Your task to perform on an android device: open app "LiveIn - Share Your Moment" Image 0: 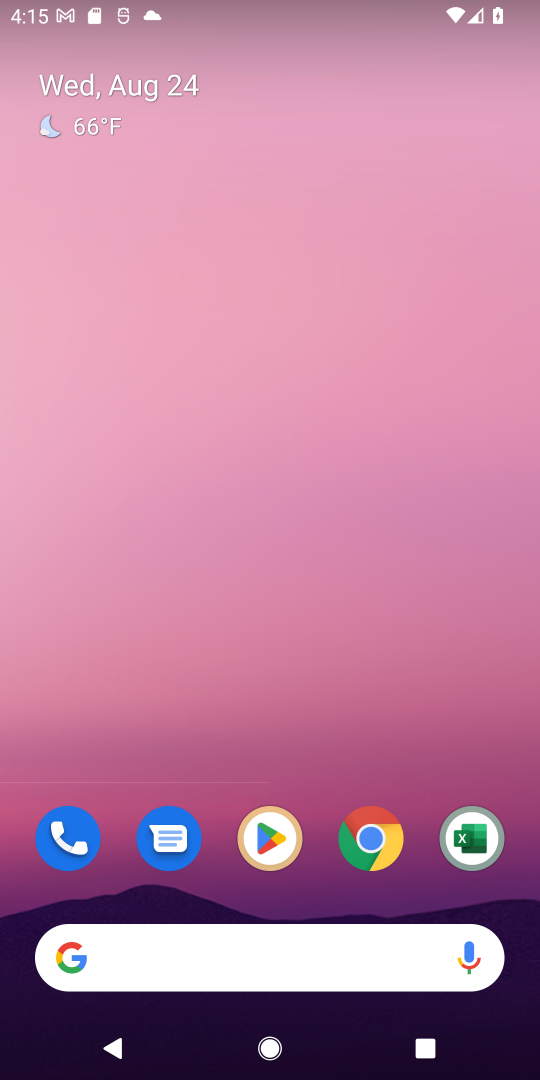
Step 0: press home button
Your task to perform on an android device: open app "LiveIn - Share Your Moment" Image 1: 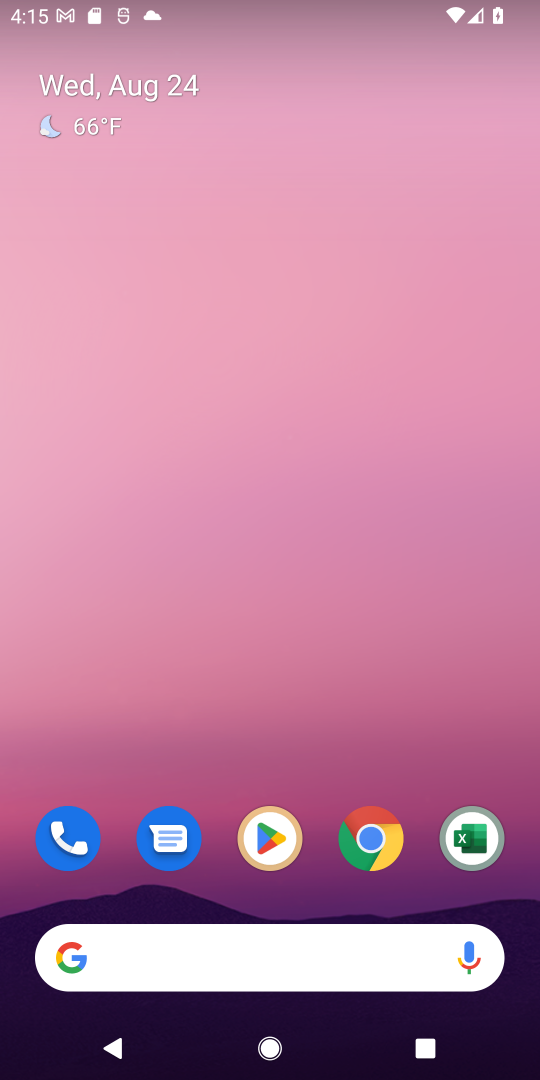
Step 1: click (265, 830)
Your task to perform on an android device: open app "LiveIn - Share Your Moment" Image 2: 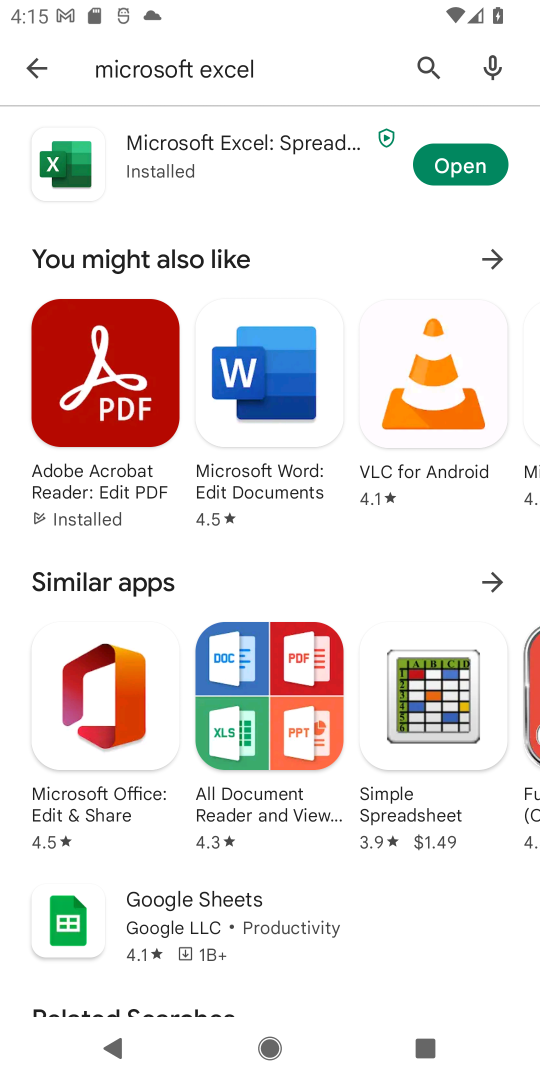
Step 2: click (422, 58)
Your task to perform on an android device: open app "LiveIn - Share Your Moment" Image 3: 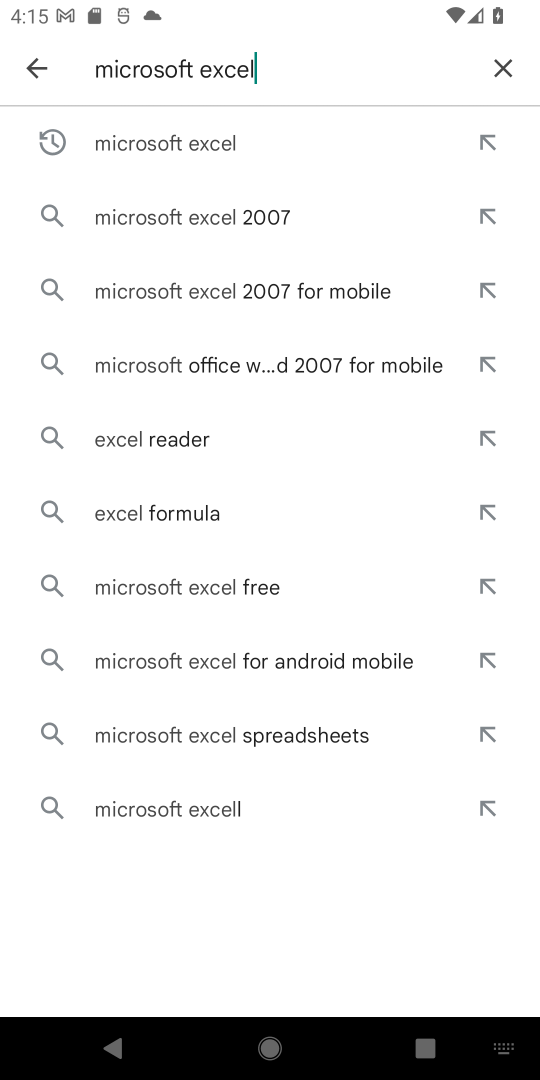
Step 3: click (512, 62)
Your task to perform on an android device: open app "LiveIn - Share Your Moment" Image 4: 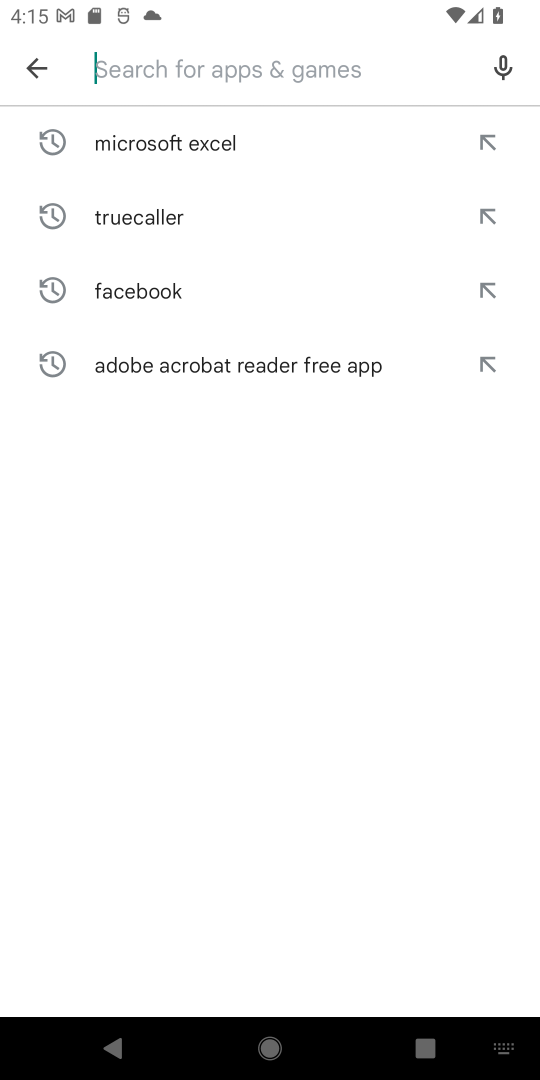
Step 4: type "LiveIn"
Your task to perform on an android device: open app "LiveIn - Share Your Moment" Image 5: 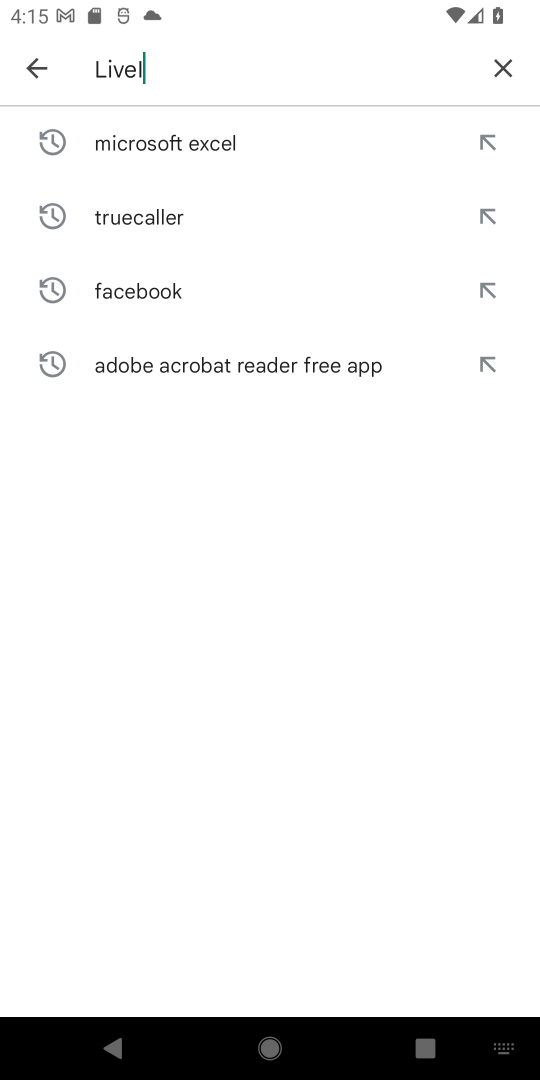
Step 5: type ""
Your task to perform on an android device: open app "LiveIn - Share Your Moment" Image 6: 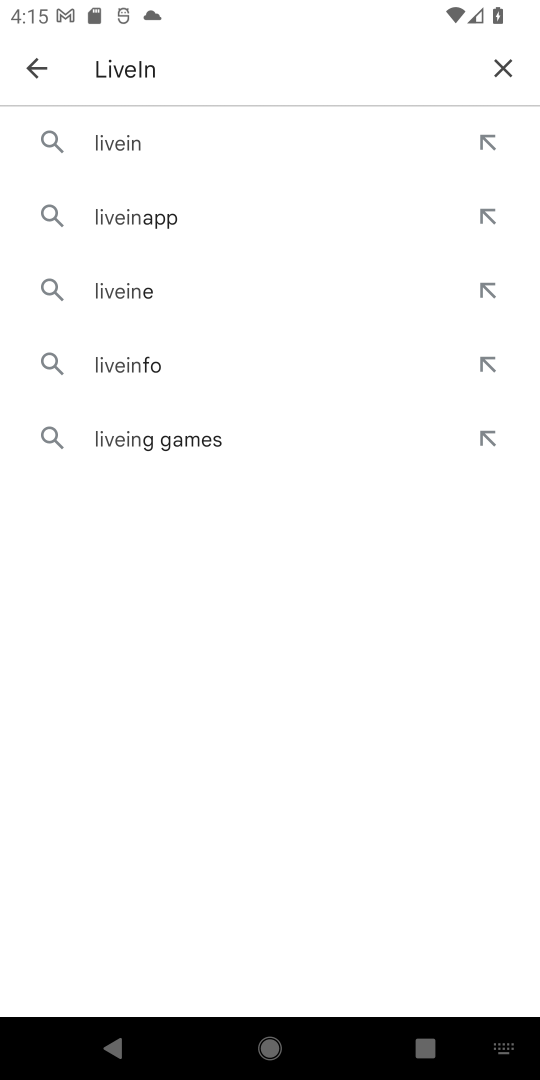
Step 6: click (163, 143)
Your task to perform on an android device: open app "LiveIn - Share Your Moment" Image 7: 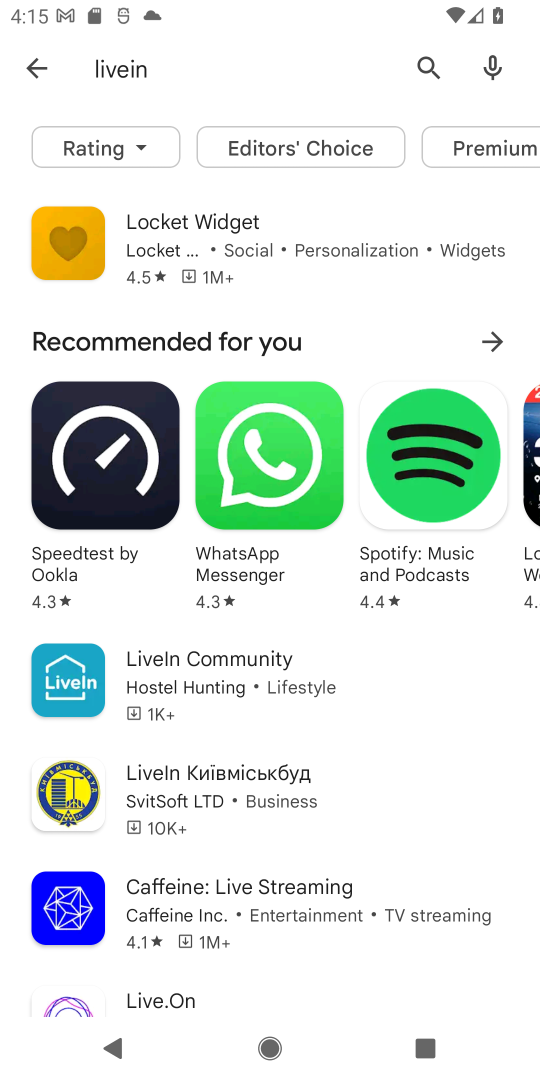
Step 7: type " - "
Your task to perform on an android device: open app "LiveIn - Share Your Moment" Image 8: 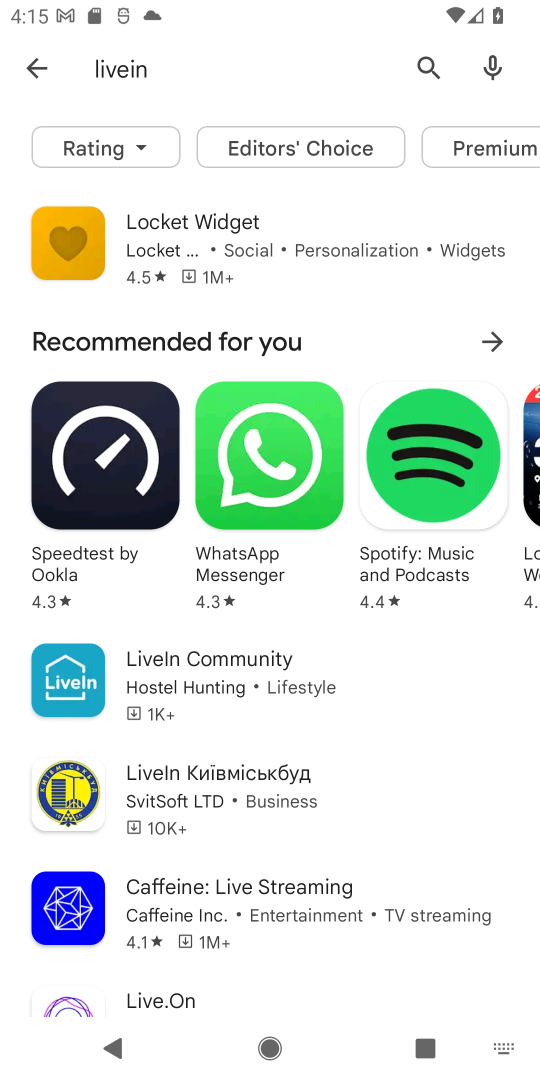
Step 8: type ""
Your task to perform on an android device: open app "LiveIn - Share Your Moment" Image 9: 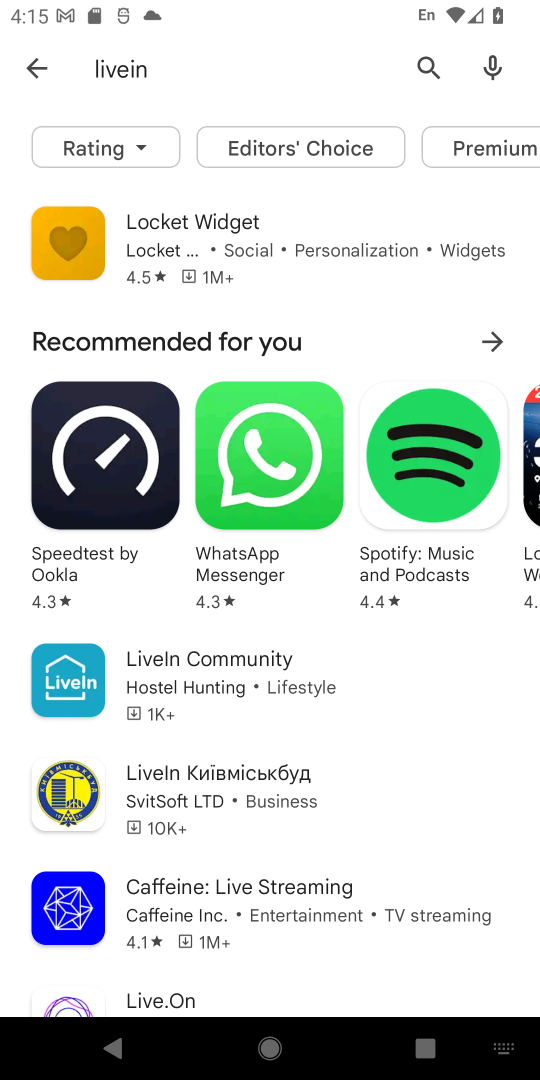
Step 9: click (425, 53)
Your task to perform on an android device: open app "LiveIn - Share Your Moment" Image 10: 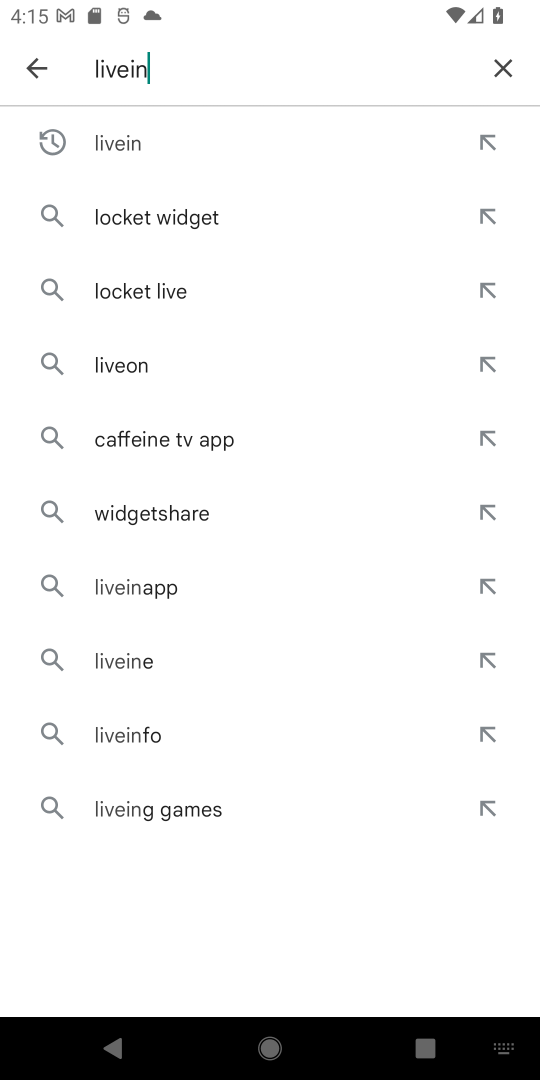
Step 10: click (521, 55)
Your task to perform on an android device: open app "LiveIn - Share Your Moment" Image 11: 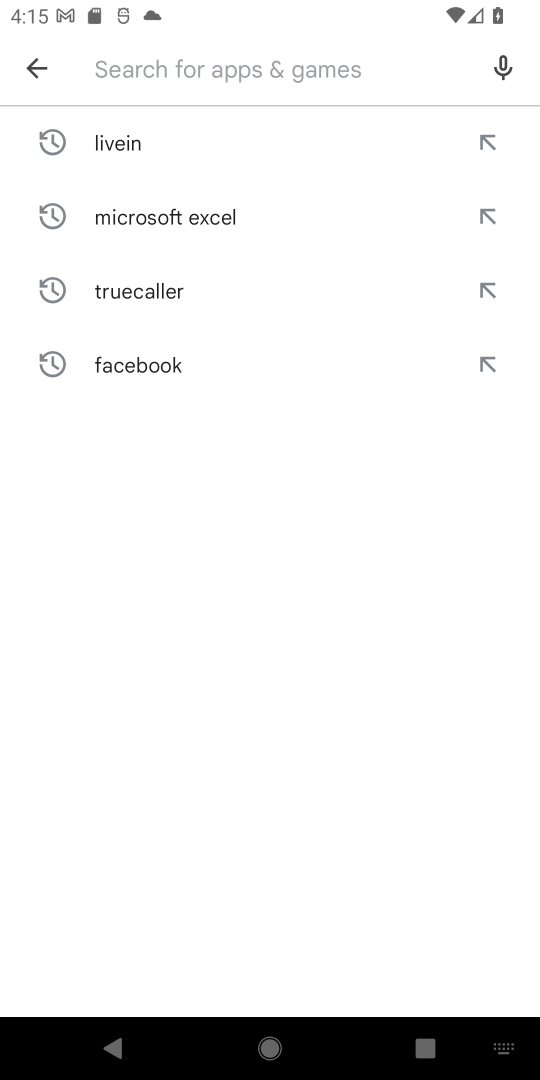
Step 11: type "LiveIn - Share Your Moment"
Your task to perform on an android device: open app "LiveIn - Share Your Moment" Image 12: 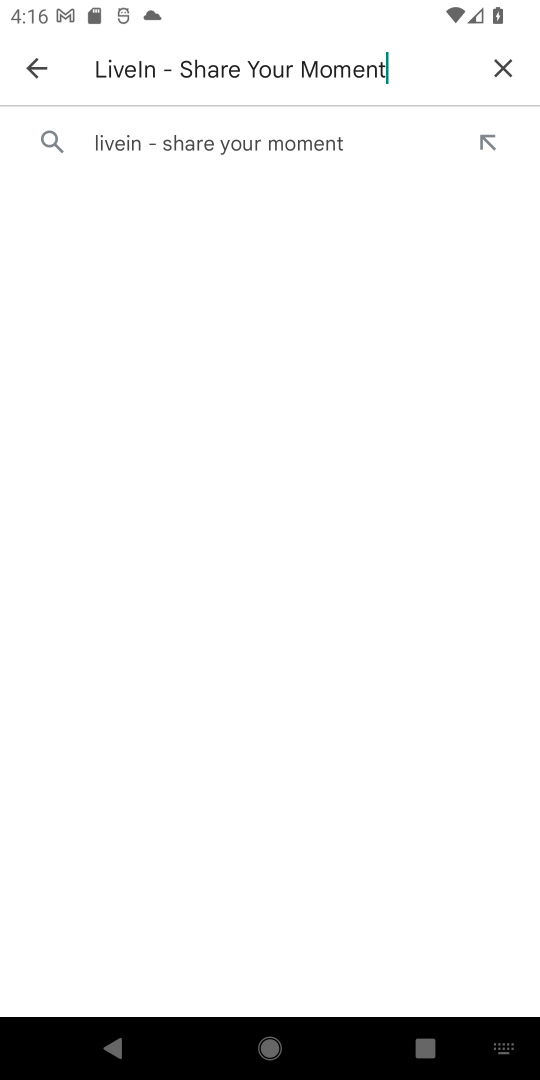
Step 12: click (190, 148)
Your task to perform on an android device: open app "LiveIn - Share Your Moment" Image 13: 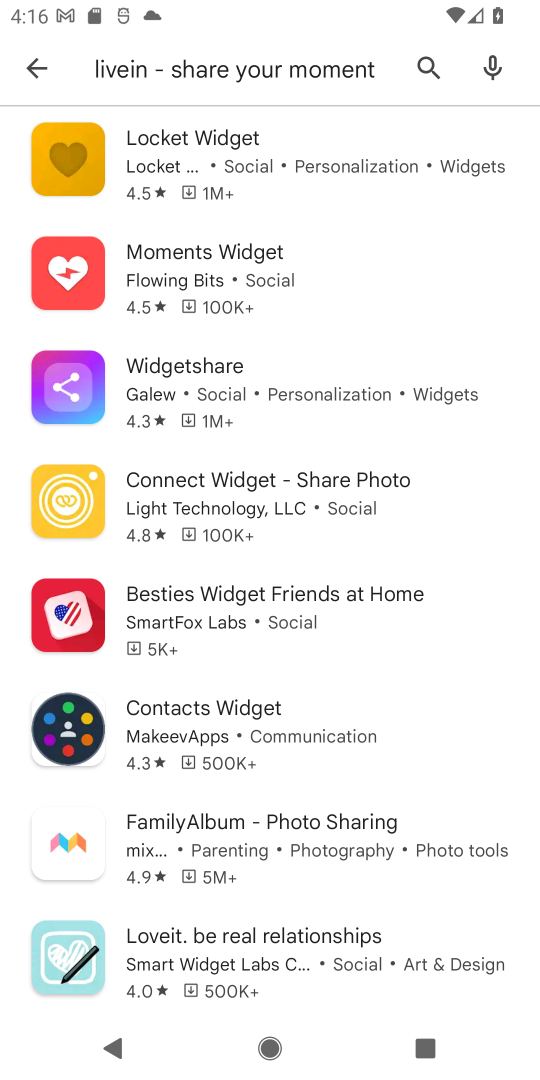
Step 13: task complete